Your task to perform on an android device: change the clock display to digital Image 0: 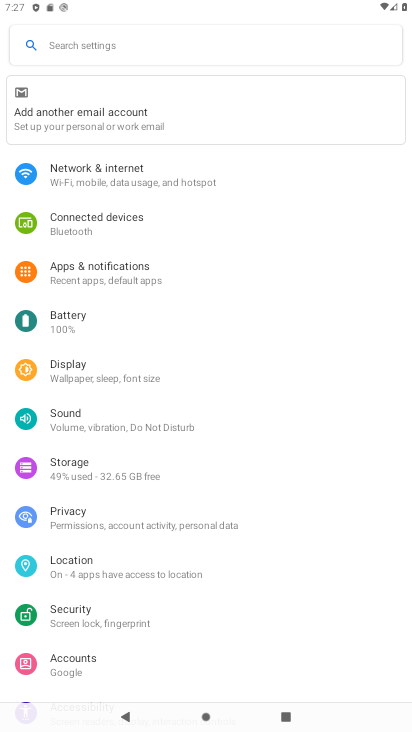
Step 0: press home button
Your task to perform on an android device: change the clock display to digital Image 1: 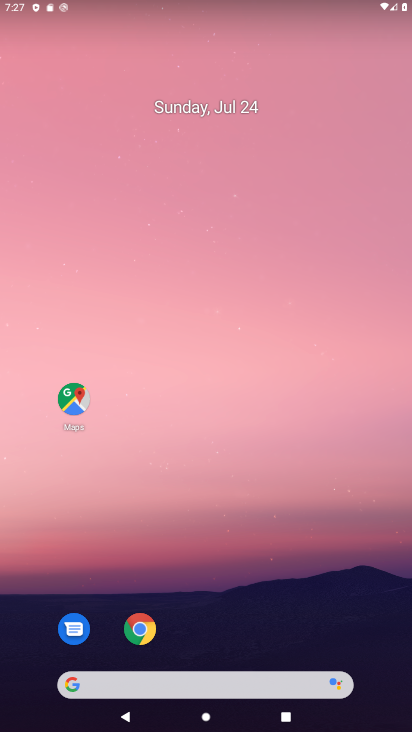
Step 1: drag from (361, 636) to (393, 62)
Your task to perform on an android device: change the clock display to digital Image 2: 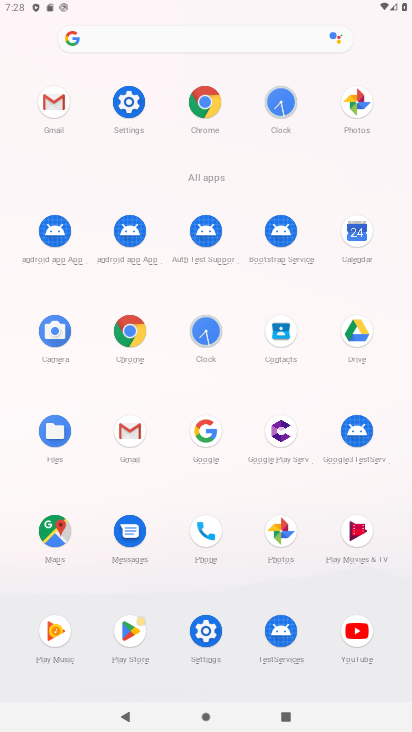
Step 2: click (202, 334)
Your task to perform on an android device: change the clock display to digital Image 3: 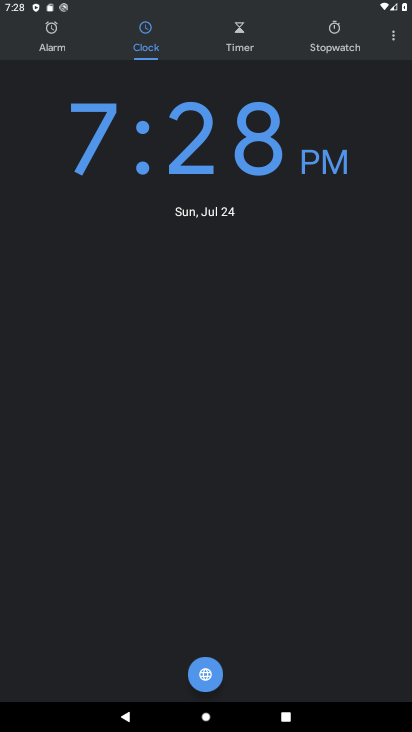
Step 3: click (394, 34)
Your task to perform on an android device: change the clock display to digital Image 4: 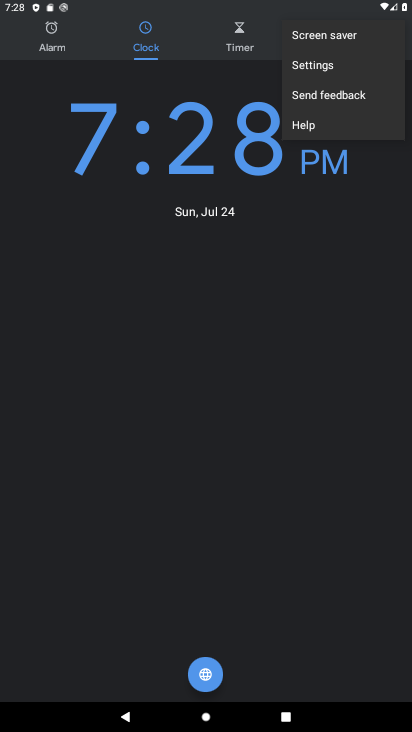
Step 4: click (341, 65)
Your task to perform on an android device: change the clock display to digital Image 5: 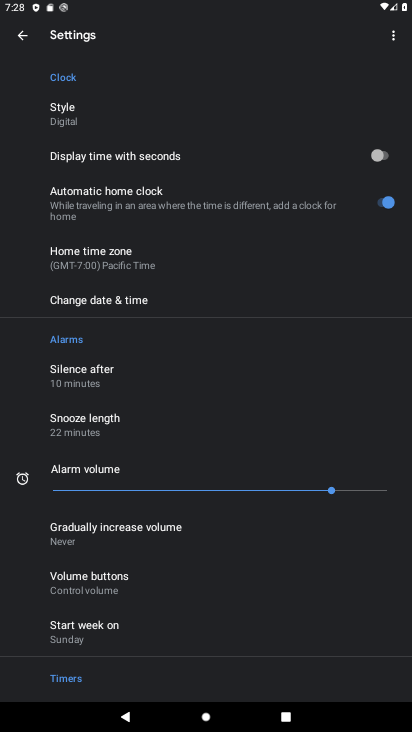
Step 5: task complete